Your task to perform on an android device: turn off sleep mode Image 0: 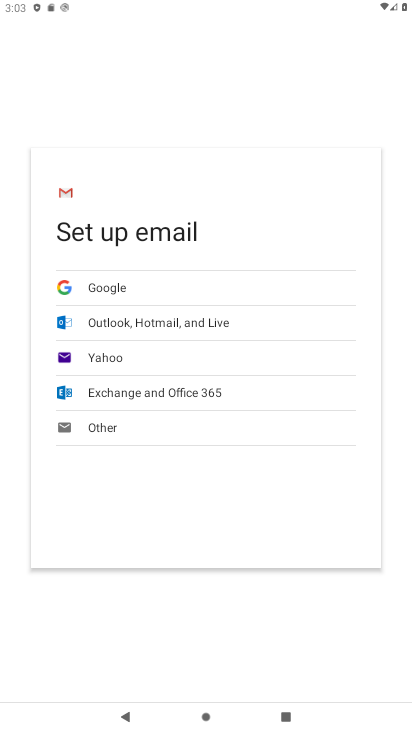
Step 0: press home button
Your task to perform on an android device: turn off sleep mode Image 1: 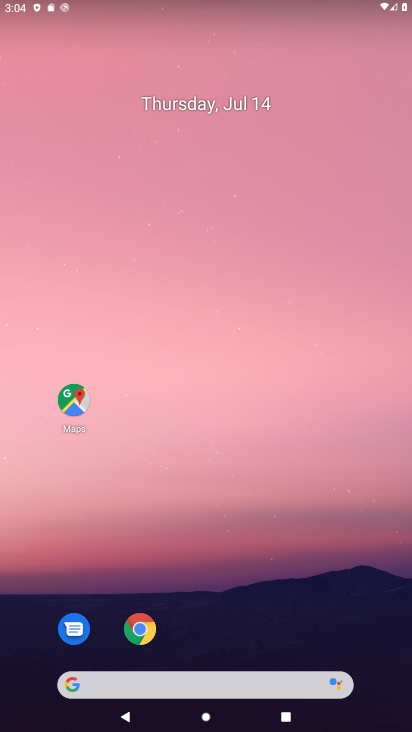
Step 1: drag from (241, 649) to (278, 182)
Your task to perform on an android device: turn off sleep mode Image 2: 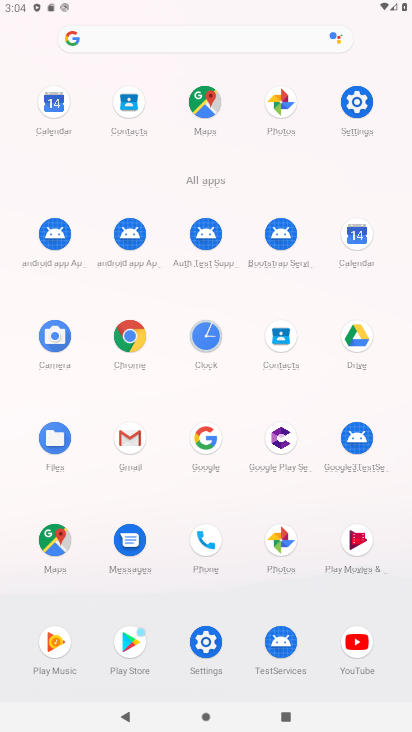
Step 2: click (352, 104)
Your task to perform on an android device: turn off sleep mode Image 3: 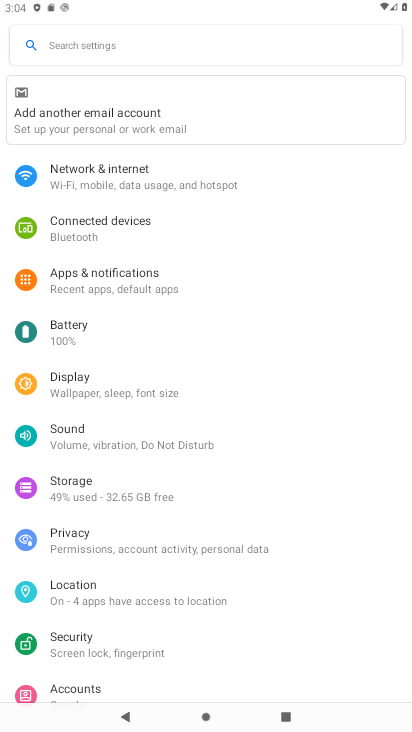
Step 3: click (103, 385)
Your task to perform on an android device: turn off sleep mode Image 4: 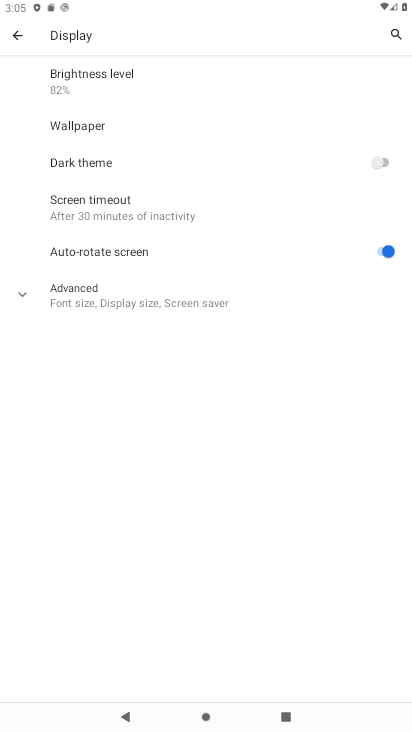
Step 4: click (27, 287)
Your task to perform on an android device: turn off sleep mode Image 5: 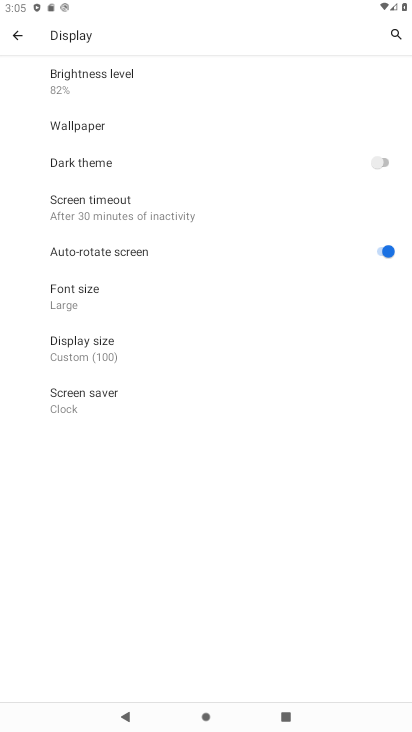
Step 5: task complete